Your task to perform on an android device: Turn on the flashlight Image 0: 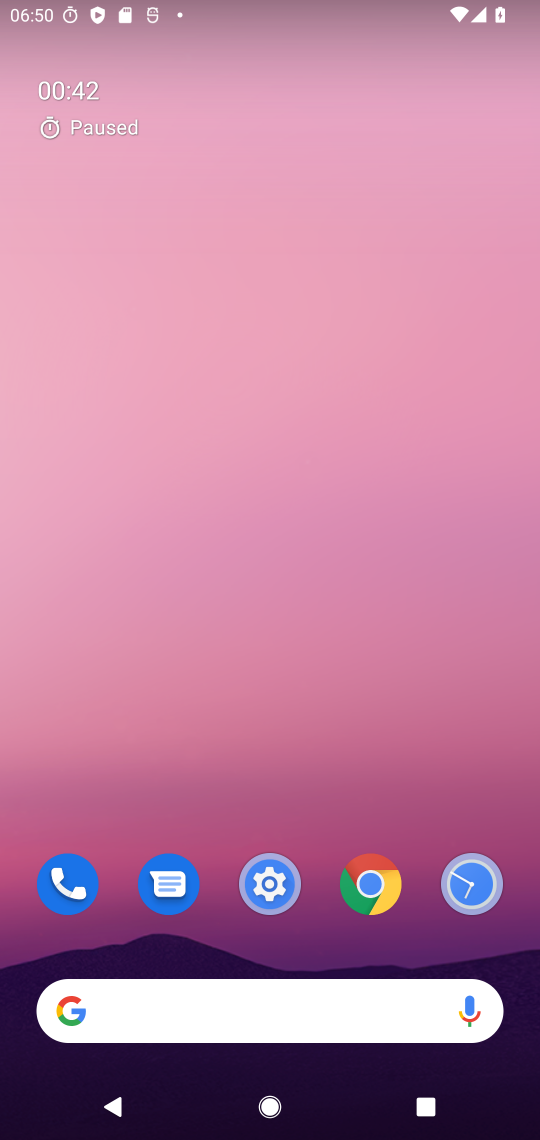
Step 0: press home button
Your task to perform on an android device: Turn on the flashlight Image 1: 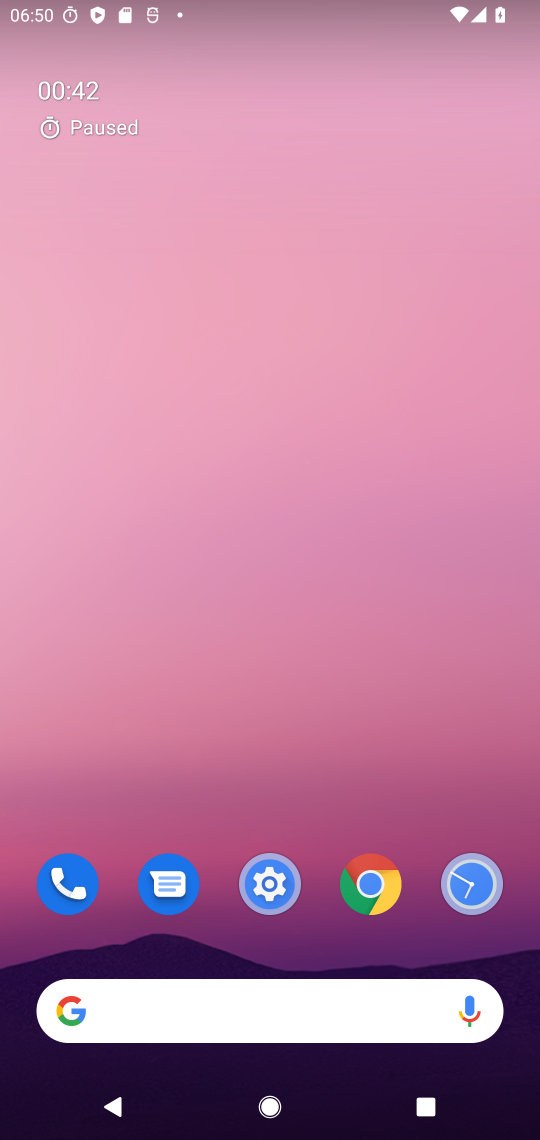
Step 1: drag from (230, 186) to (187, 710)
Your task to perform on an android device: Turn on the flashlight Image 2: 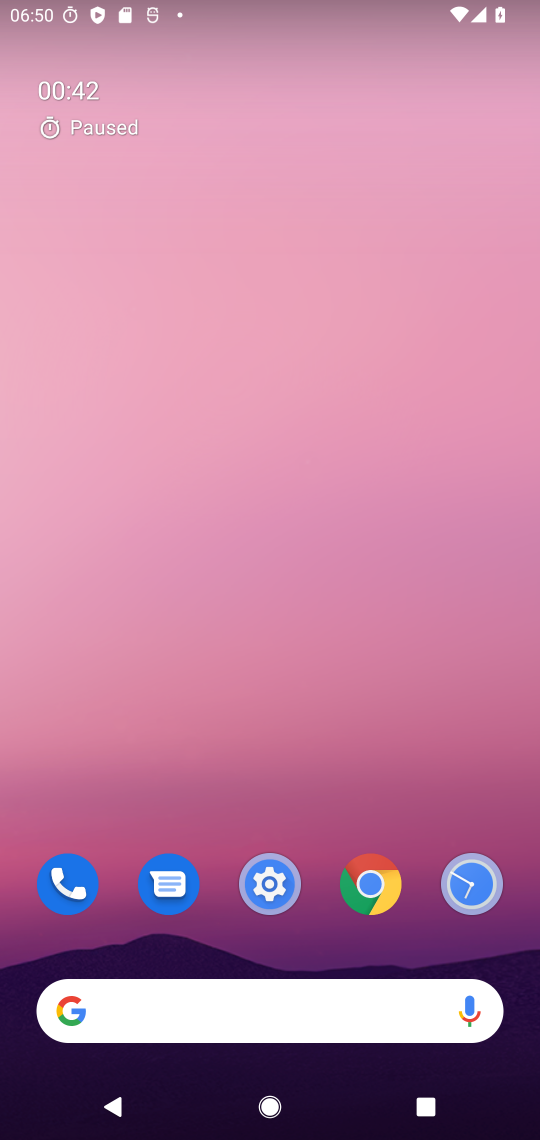
Step 2: drag from (195, 209) to (159, 582)
Your task to perform on an android device: Turn on the flashlight Image 3: 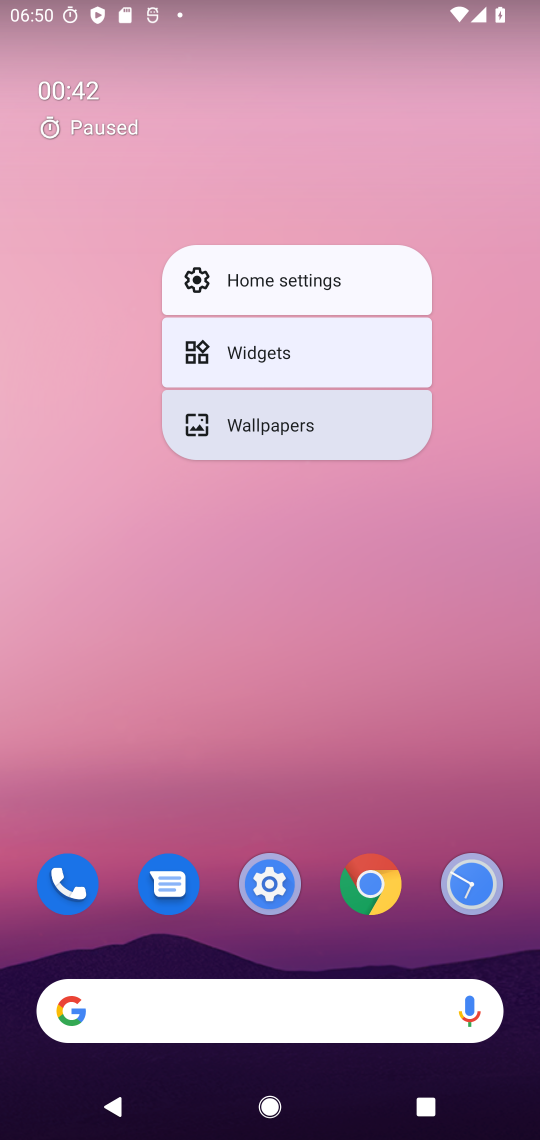
Step 3: drag from (181, 386) to (167, 474)
Your task to perform on an android device: Turn on the flashlight Image 4: 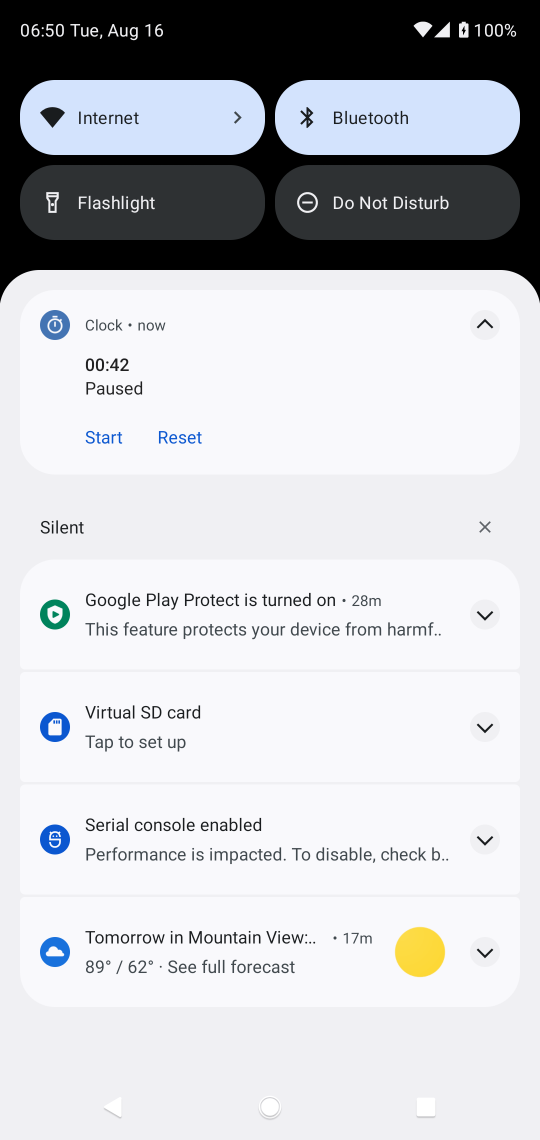
Step 4: click (106, 214)
Your task to perform on an android device: Turn on the flashlight Image 5: 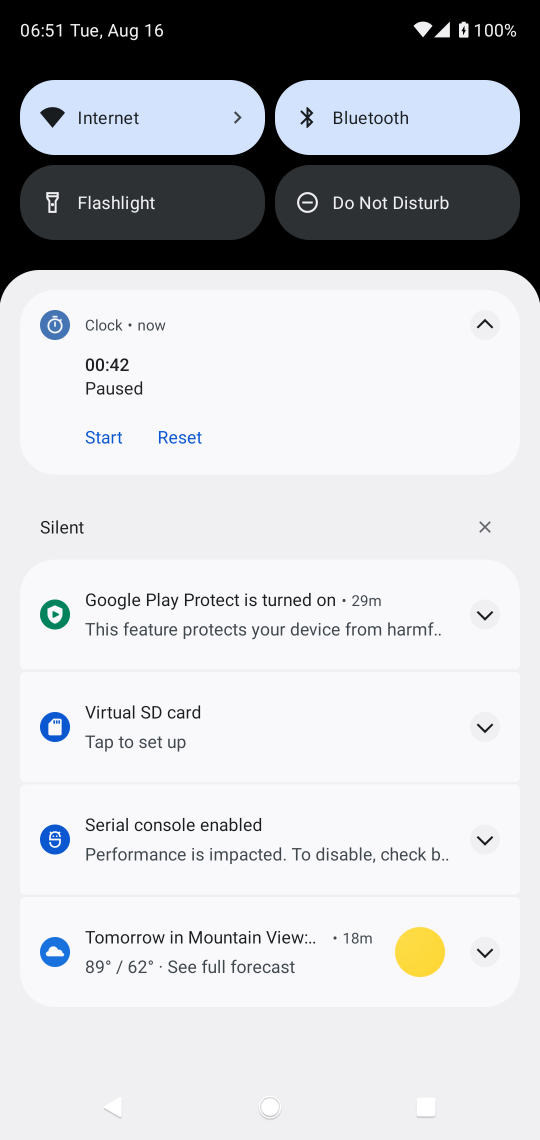
Step 5: task complete